Your task to perform on an android device: Open accessibility settings Image 0: 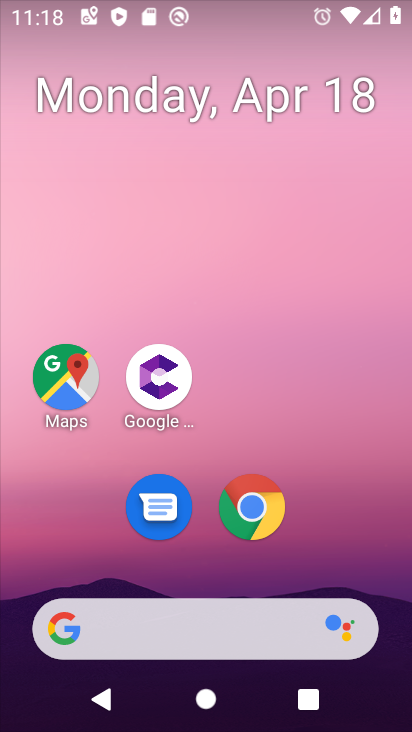
Step 0: drag from (246, 660) to (236, 166)
Your task to perform on an android device: Open accessibility settings Image 1: 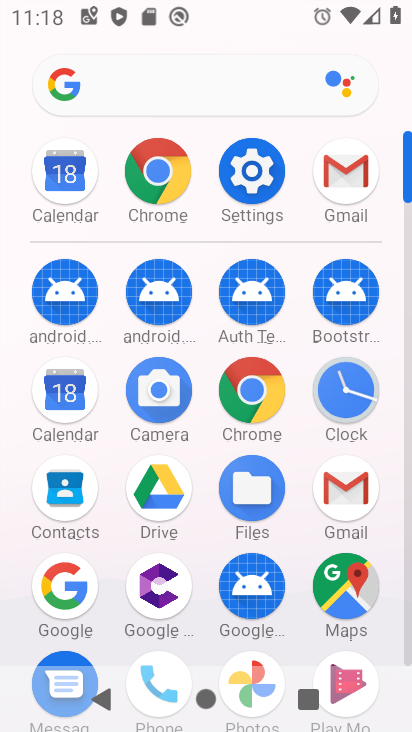
Step 1: click (261, 164)
Your task to perform on an android device: Open accessibility settings Image 2: 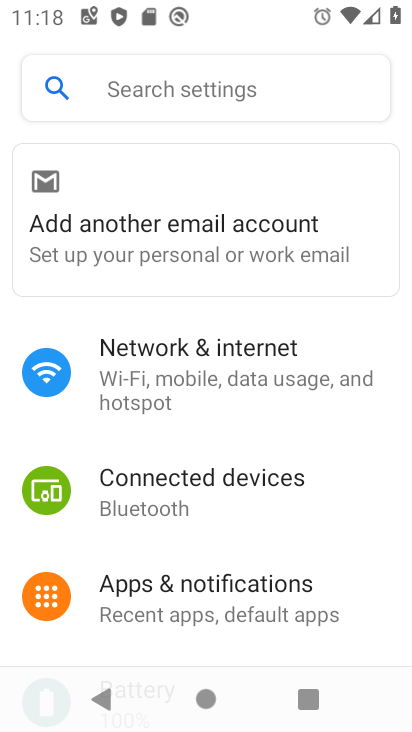
Step 2: click (159, 116)
Your task to perform on an android device: Open accessibility settings Image 3: 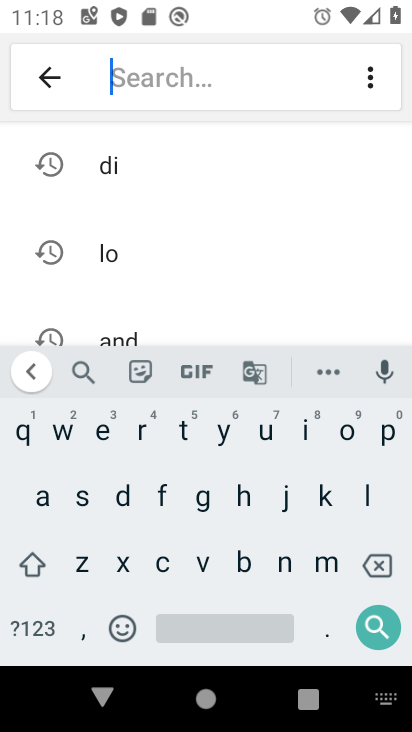
Step 3: click (40, 491)
Your task to perform on an android device: Open accessibility settings Image 4: 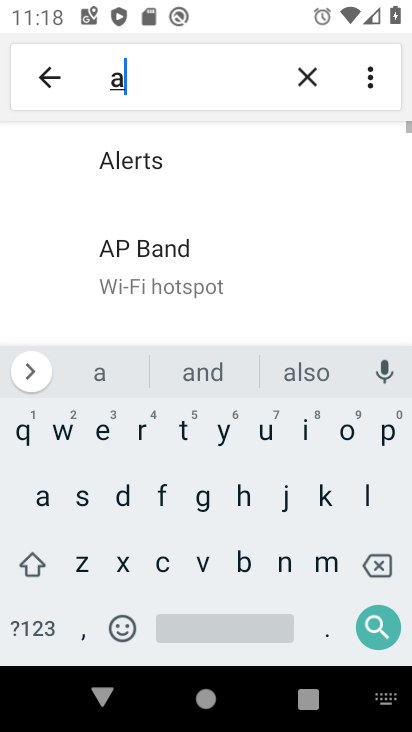
Step 4: click (163, 563)
Your task to perform on an android device: Open accessibility settings Image 5: 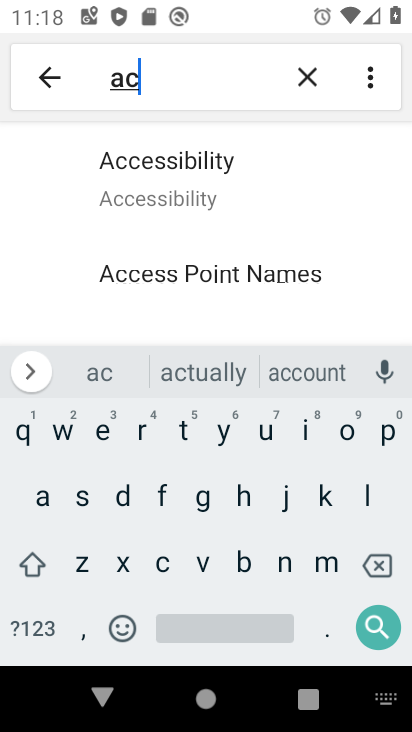
Step 5: click (225, 147)
Your task to perform on an android device: Open accessibility settings Image 6: 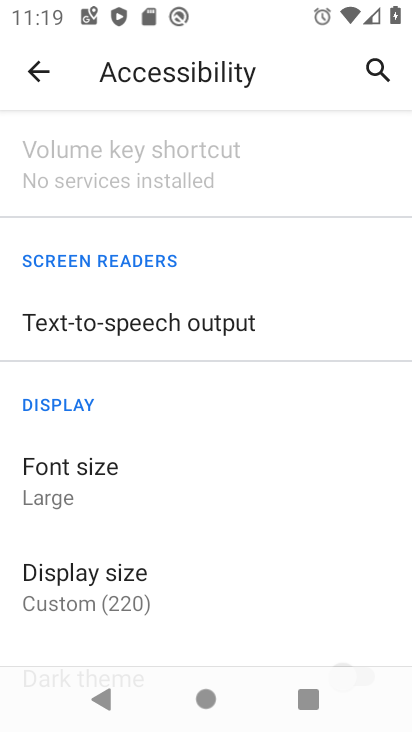
Step 6: task complete